Your task to perform on an android device: Go to internet settings Image 0: 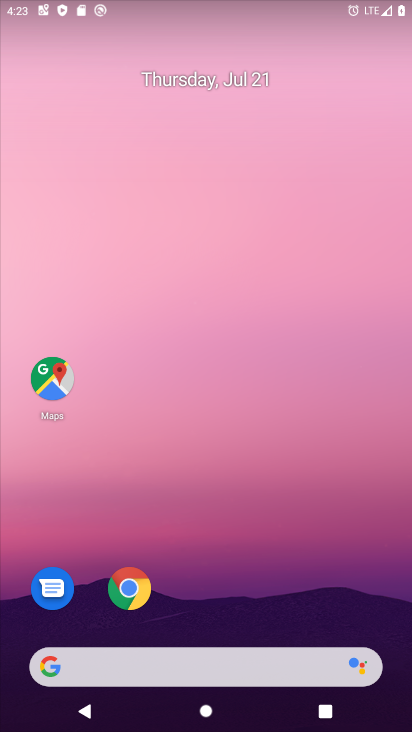
Step 0: click (334, 258)
Your task to perform on an android device: Go to internet settings Image 1: 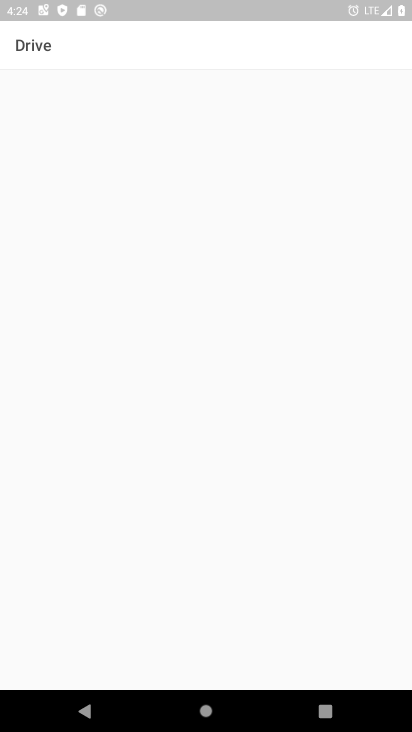
Step 1: drag from (276, 479) to (300, 181)
Your task to perform on an android device: Go to internet settings Image 2: 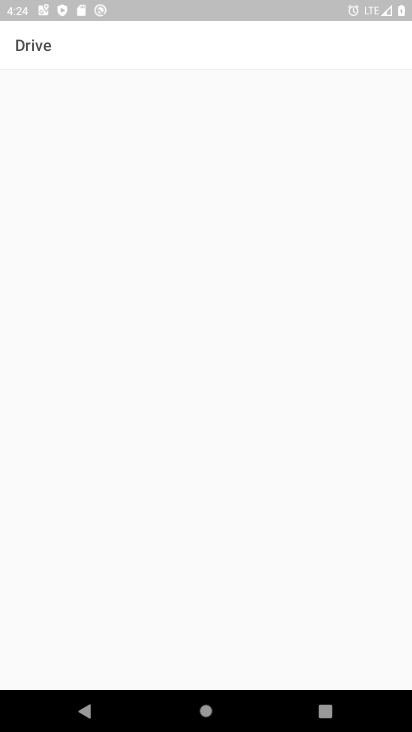
Step 2: press home button
Your task to perform on an android device: Go to internet settings Image 3: 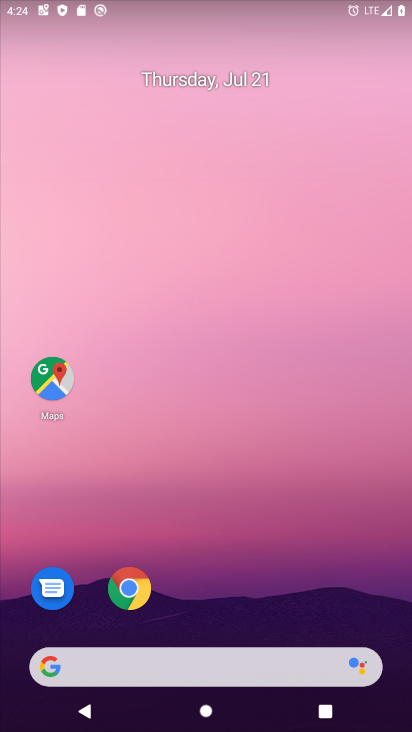
Step 3: drag from (266, 596) to (298, 22)
Your task to perform on an android device: Go to internet settings Image 4: 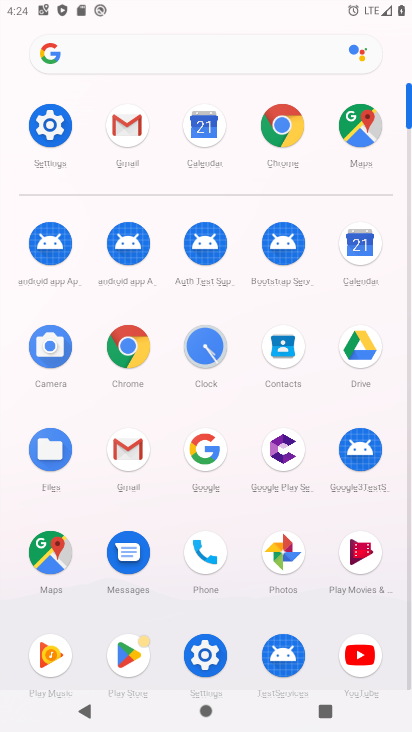
Step 4: click (199, 651)
Your task to perform on an android device: Go to internet settings Image 5: 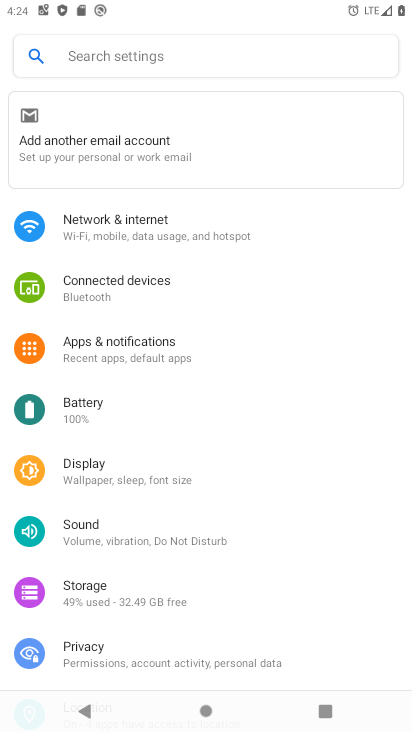
Step 5: click (93, 219)
Your task to perform on an android device: Go to internet settings Image 6: 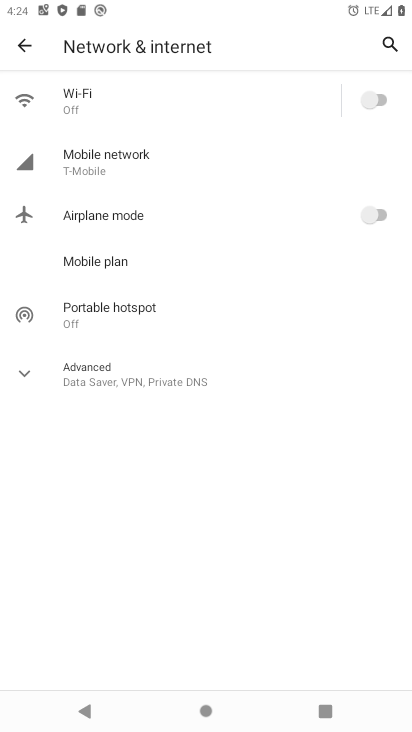
Step 6: task complete